Your task to perform on an android device: turn off wifi Image 0: 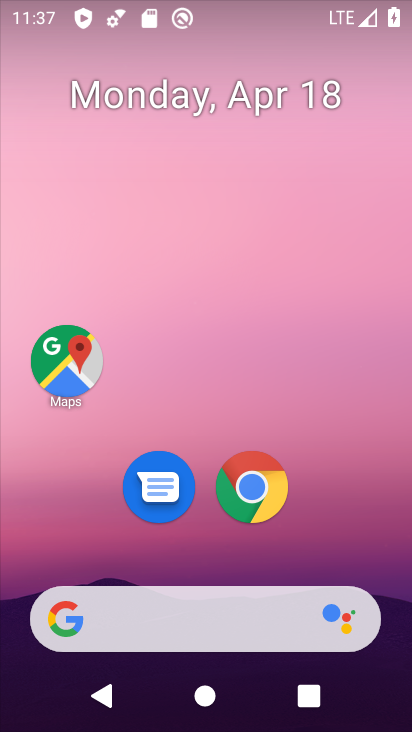
Step 0: drag from (191, 464) to (132, 180)
Your task to perform on an android device: turn off wifi Image 1: 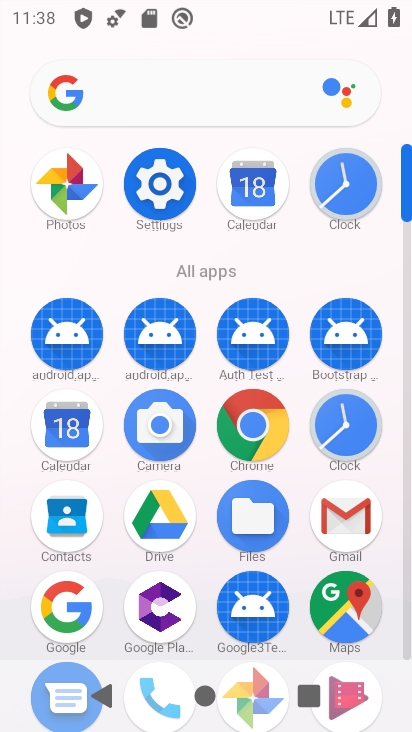
Step 1: click (159, 191)
Your task to perform on an android device: turn off wifi Image 2: 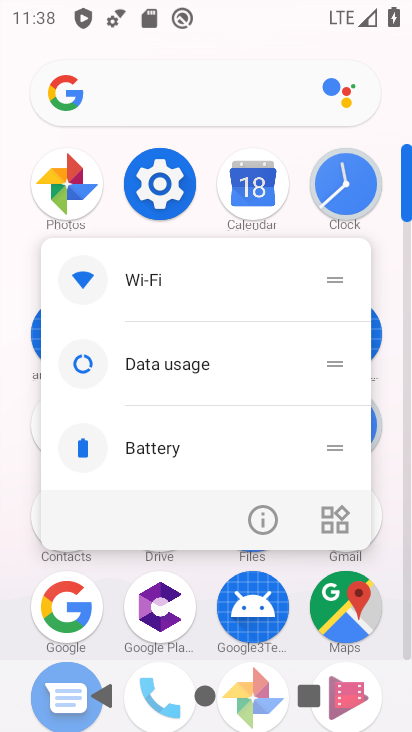
Step 2: click (150, 187)
Your task to perform on an android device: turn off wifi Image 3: 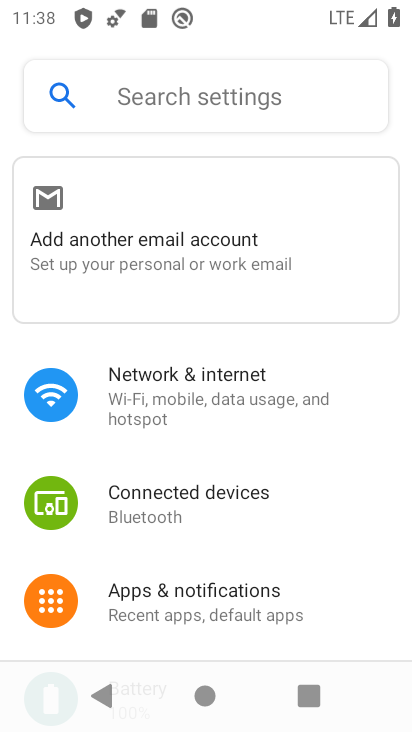
Step 3: click (171, 382)
Your task to perform on an android device: turn off wifi Image 4: 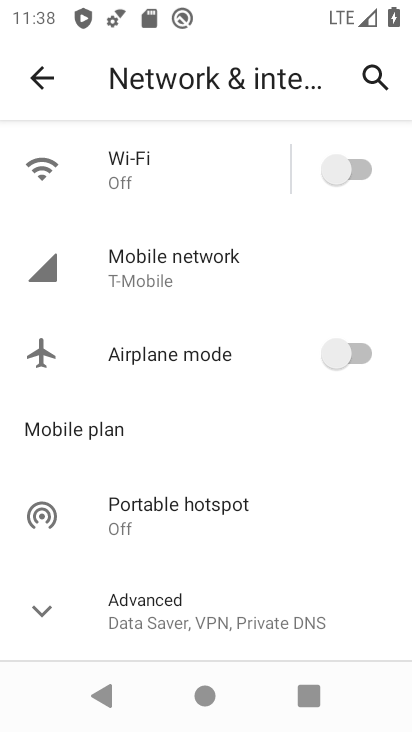
Step 4: task complete